Your task to perform on an android device: What's the weather going to be tomorrow? Image 0: 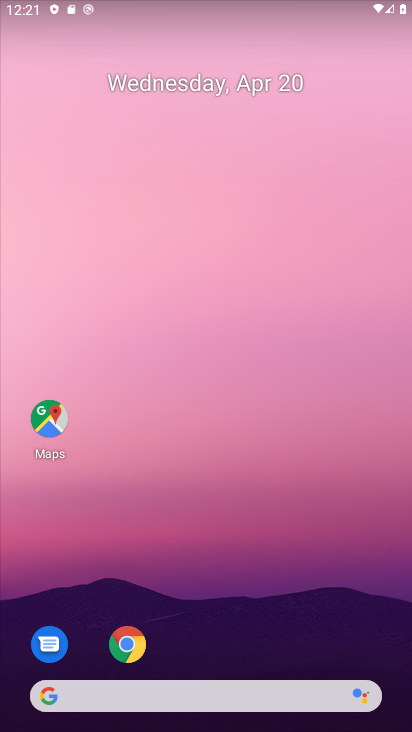
Step 0: click (48, 693)
Your task to perform on an android device: What's the weather going to be tomorrow? Image 1: 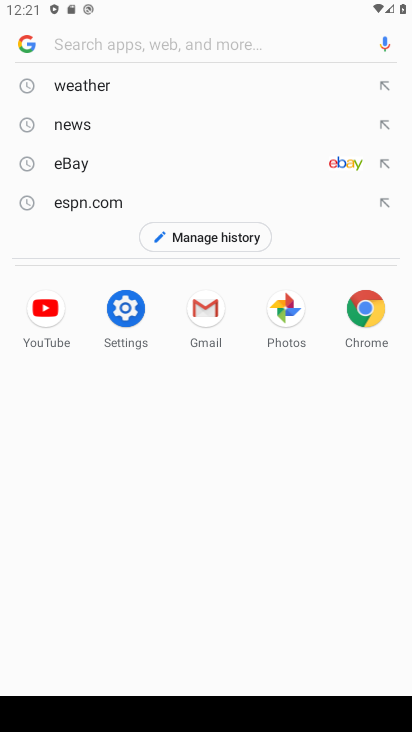
Step 1: click (110, 88)
Your task to perform on an android device: What's the weather going to be tomorrow? Image 2: 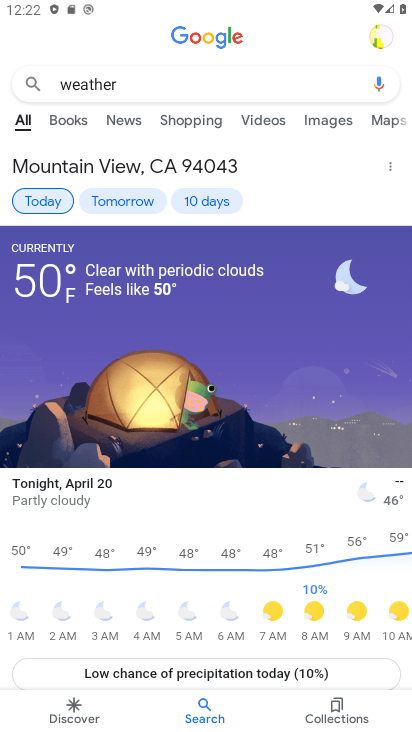
Step 2: click (117, 195)
Your task to perform on an android device: What's the weather going to be tomorrow? Image 3: 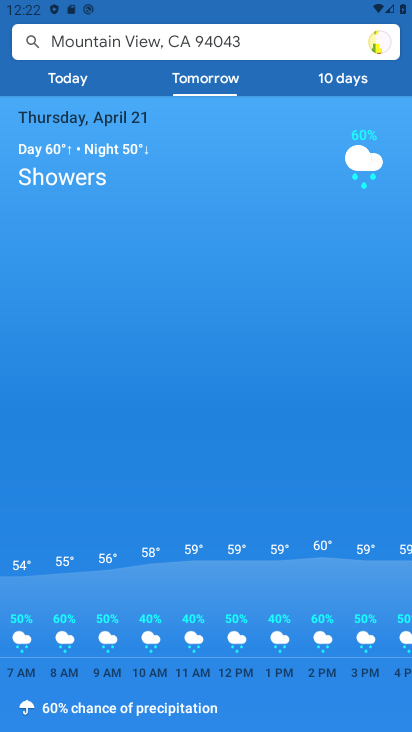
Step 3: task complete